Your task to perform on an android device: Go to internet settings Image 0: 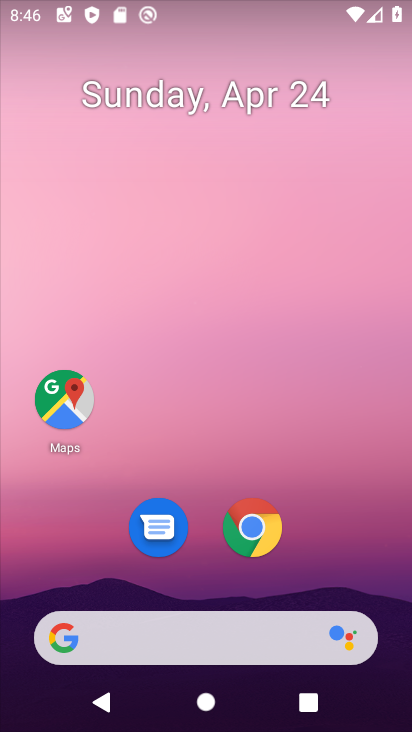
Step 0: drag from (393, 501) to (283, 728)
Your task to perform on an android device: Go to internet settings Image 1: 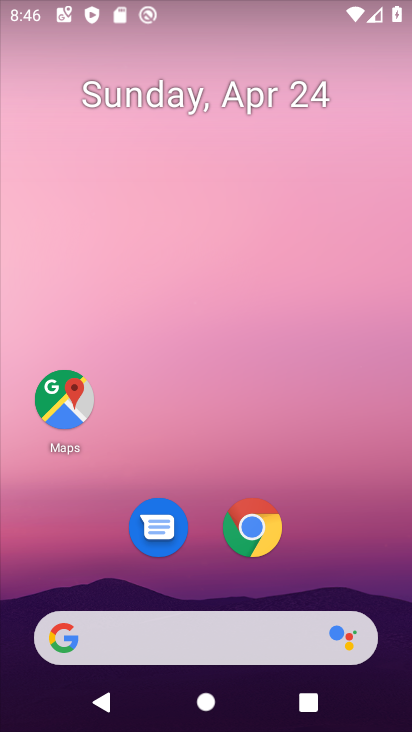
Step 1: drag from (328, 581) to (384, 18)
Your task to perform on an android device: Go to internet settings Image 2: 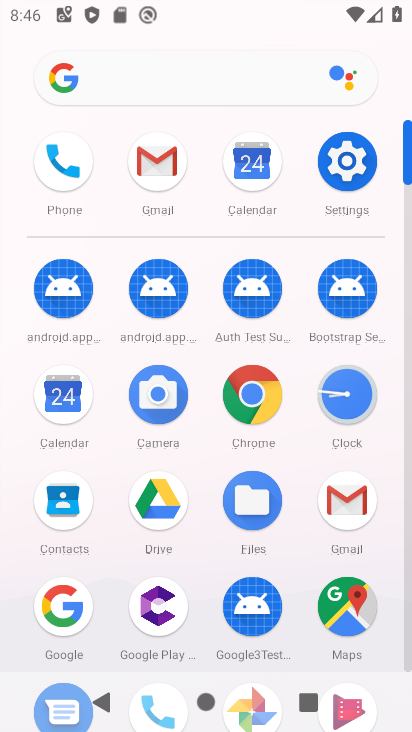
Step 2: click (352, 161)
Your task to perform on an android device: Go to internet settings Image 3: 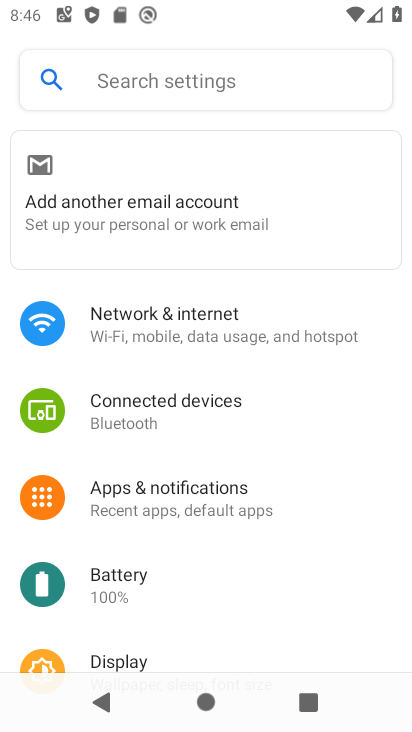
Step 3: click (175, 343)
Your task to perform on an android device: Go to internet settings Image 4: 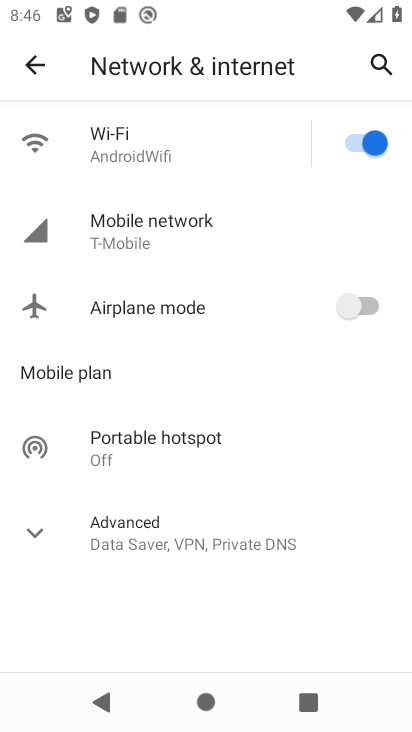
Step 4: click (35, 547)
Your task to perform on an android device: Go to internet settings Image 5: 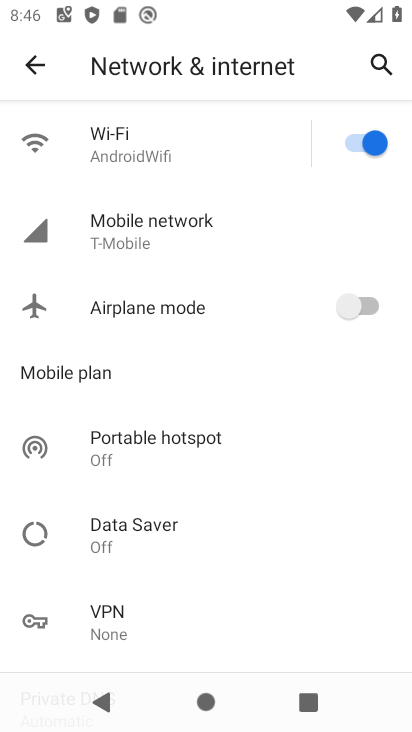
Step 5: task complete